Your task to perform on an android device: Open sound settings Image 0: 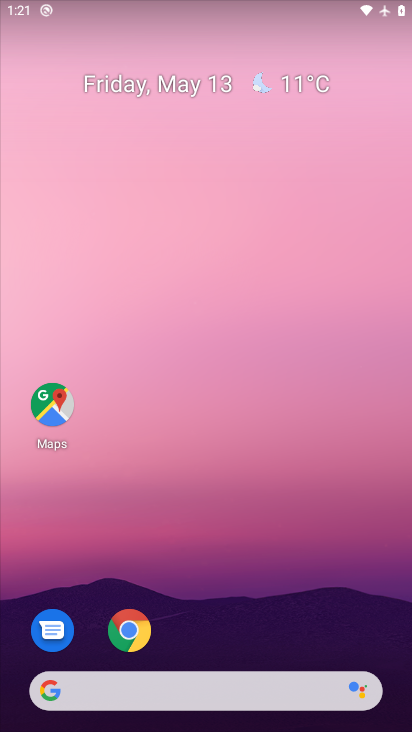
Step 0: drag from (201, 653) to (305, 214)
Your task to perform on an android device: Open sound settings Image 1: 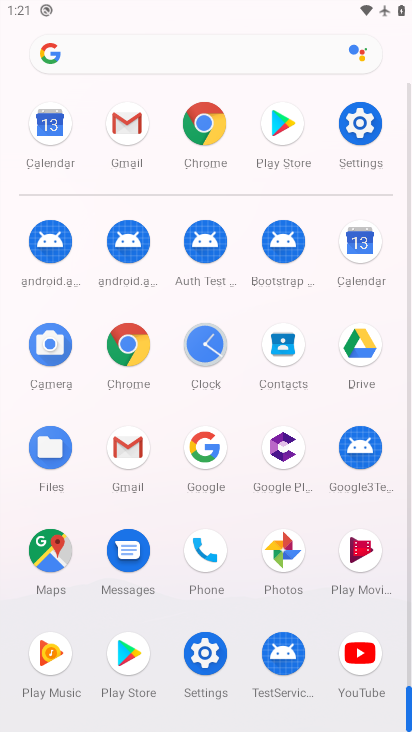
Step 1: click (361, 139)
Your task to perform on an android device: Open sound settings Image 2: 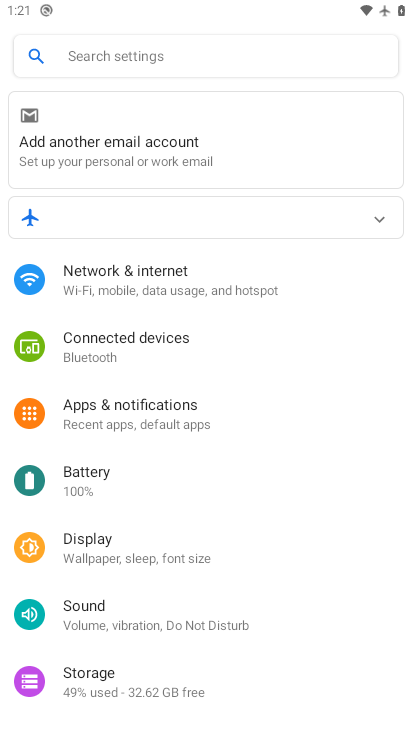
Step 2: click (122, 624)
Your task to perform on an android device: Open sound settings Image 3: 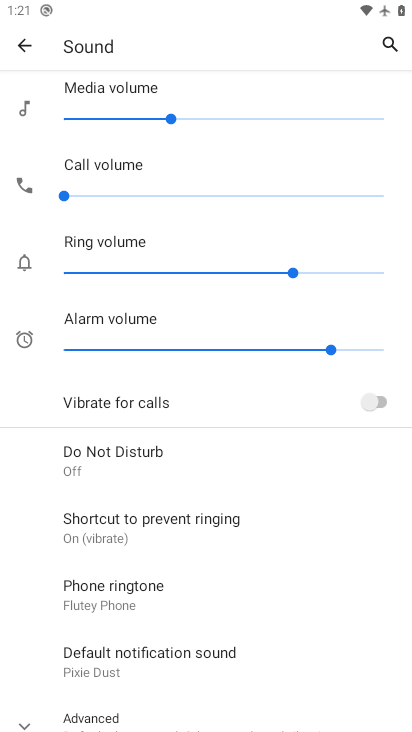
Step 3: task complete